Your task to perform on an android device: toggle notification dots Image 0: 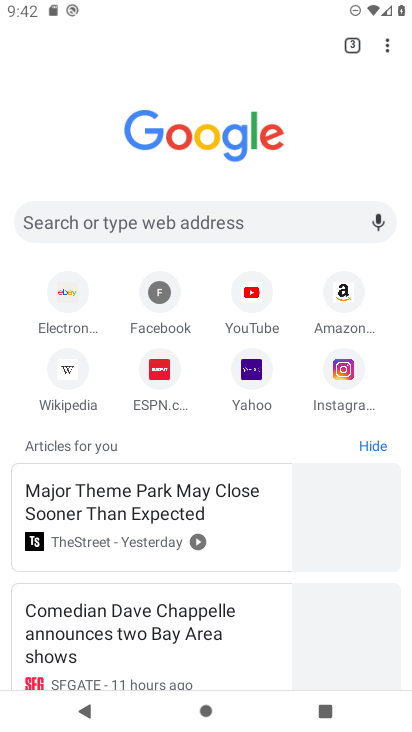
Step 0: click (24, 55)
Your task to perform on an android device: toggle notification dots Image 1: 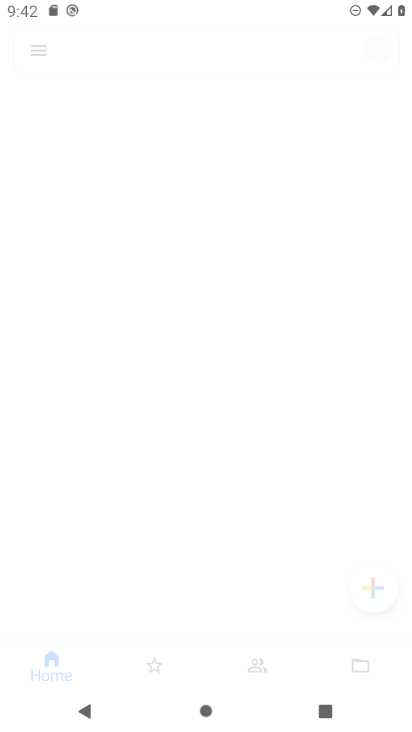
Step 1: press back button
Your task to perform on an android device: toggle notification dots Image 2: 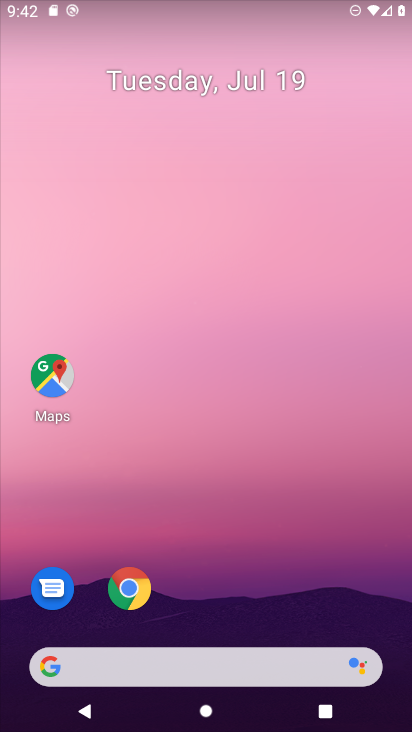
Step 2: drag from (254, 644) to (271, 221)
Your task to perform on an android device: toggle notification dots Image 3: 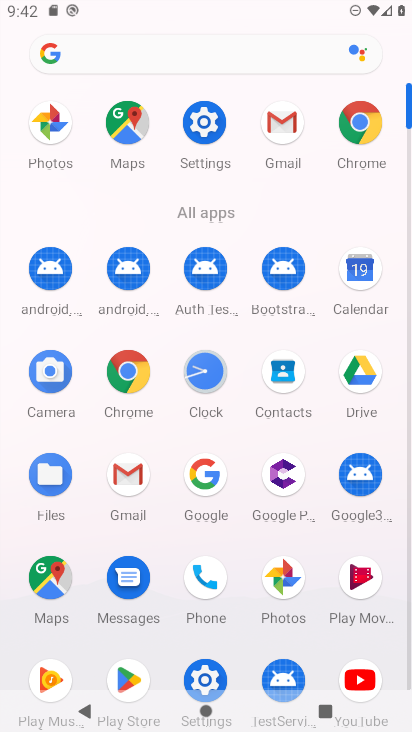
Step 3: click (199, 129)
Your task to perform on an android device: toggle notification dots Image 4: 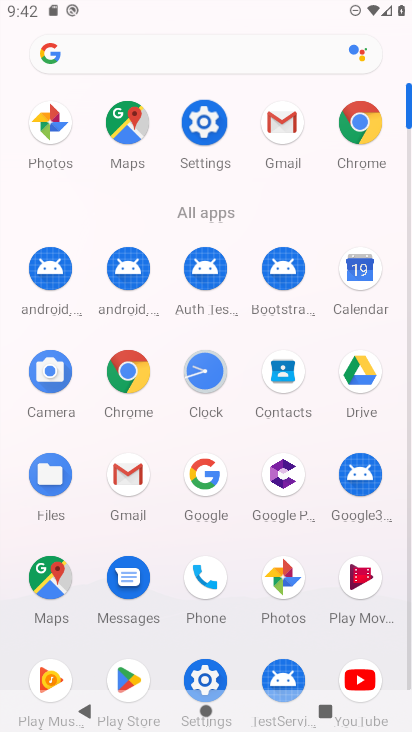
Step 4: click (197, 133)
Your task to perform on an android device: toggle notification dots Image 5: 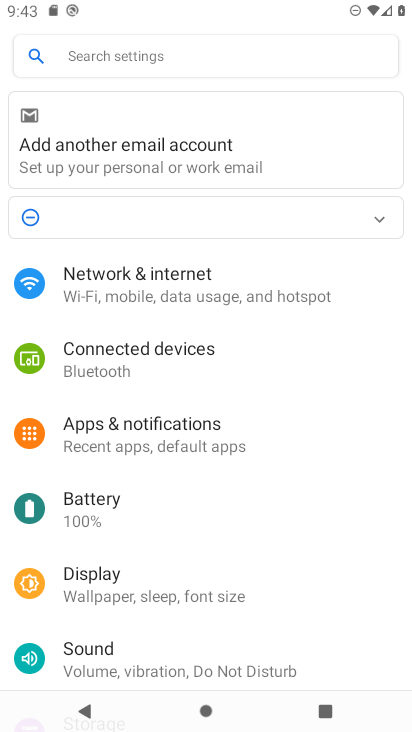
Step 5: click (138, 433)
Your task to perform on an android device: toggle notification dots Image 6: 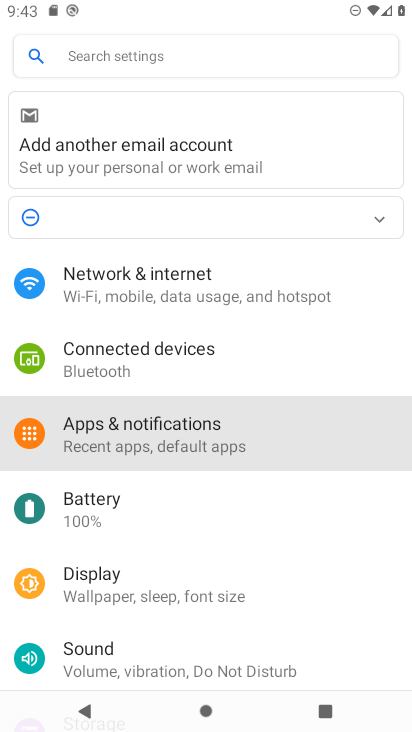
Step 6: click (138, 433)
Your task to perform on an android device: toggle notification dots Image 7: 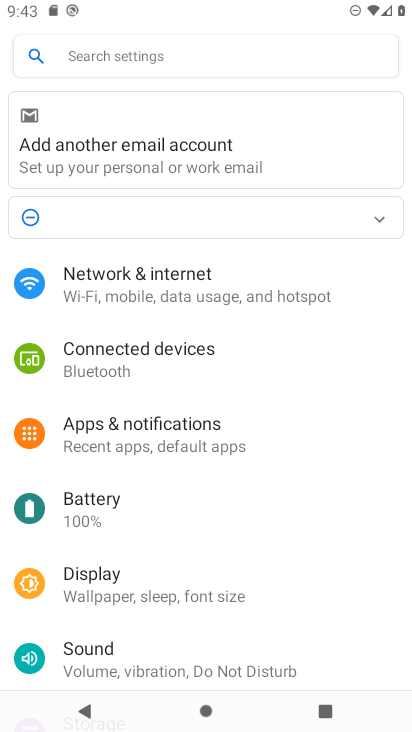
Step 7: click (138, 433)
Your task to perform on an android device: toggle notification dots Image 8: 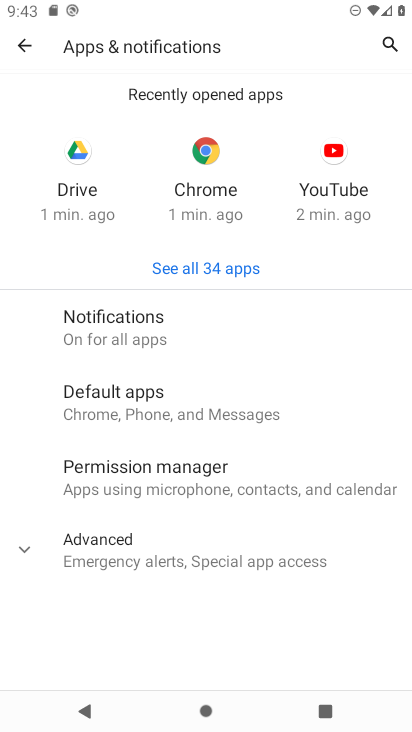
Step 8: click (138, 332)
Your task to perform on an android device: toggle notification dots Image 9: 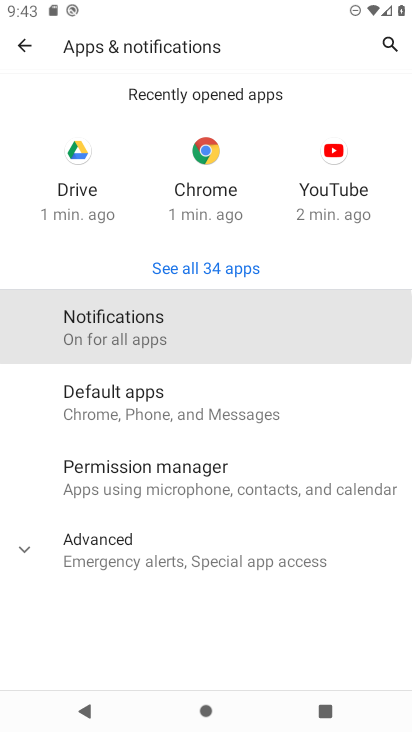
Step 9: click (138, 332)
Your task to perform on an android device: toggle notification dots Image 10: 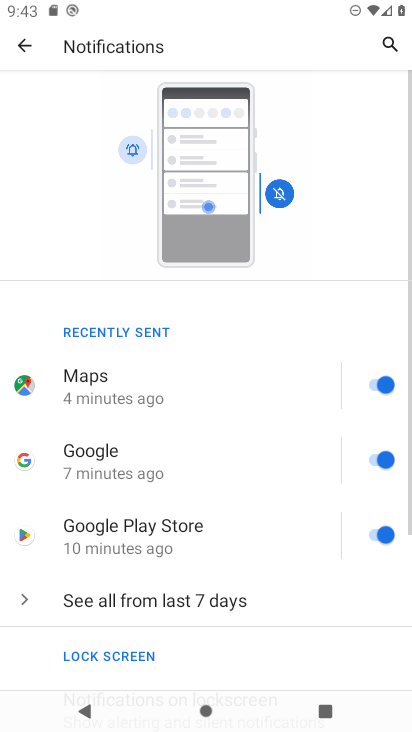
Step 10: drag from (200, 597) to (181, 272)
Your task to perform on an android device: toggle notification dots Image 11: 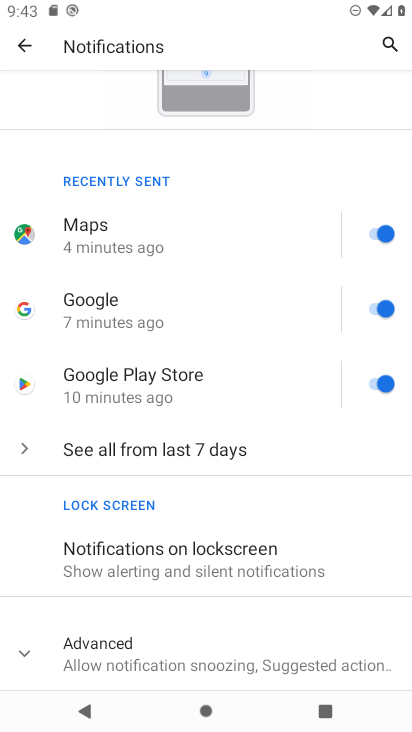
Step 11: drag from (162, 544) to (207, 272)
Your task to perform on an android device: toggle notification dots Image 12: 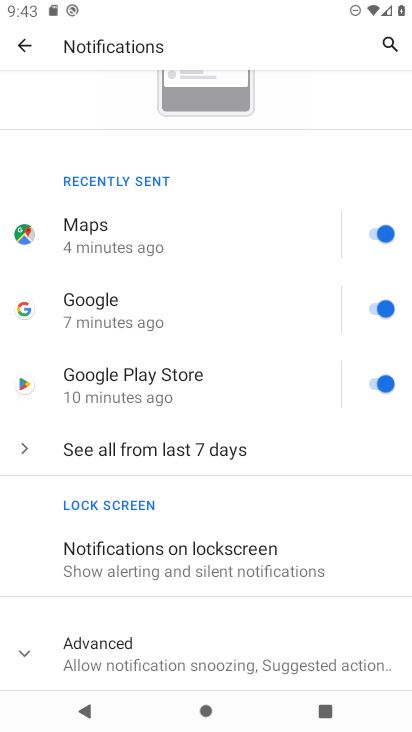
Step 12: drag from (153, 590) to (152, 340)
Your task to perform on an android device: toggle notification dots Image 13: 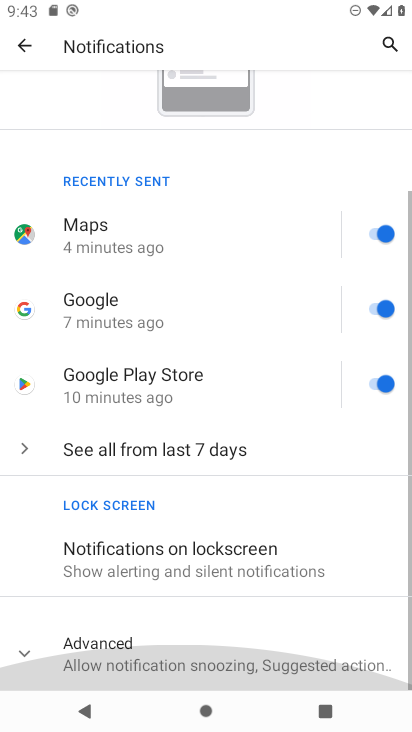
Step 13: drag from (209, 592) to (209, 368)
Your task to perform on an android device: toggle notification dots Image 14: 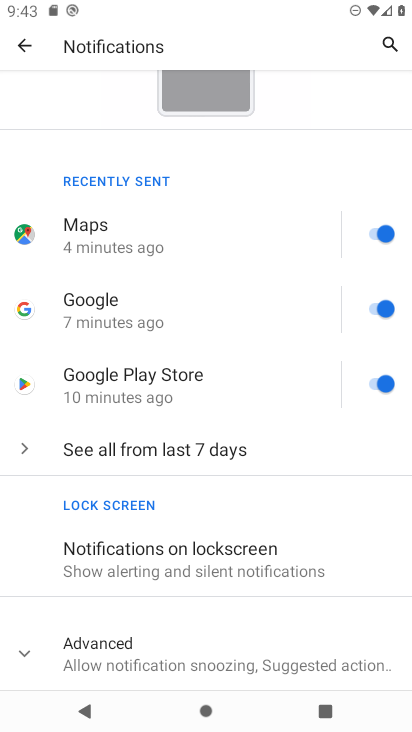
Step 14: click (126, 666)
Your task to perform on an android device: toggle notification dots Image 15: 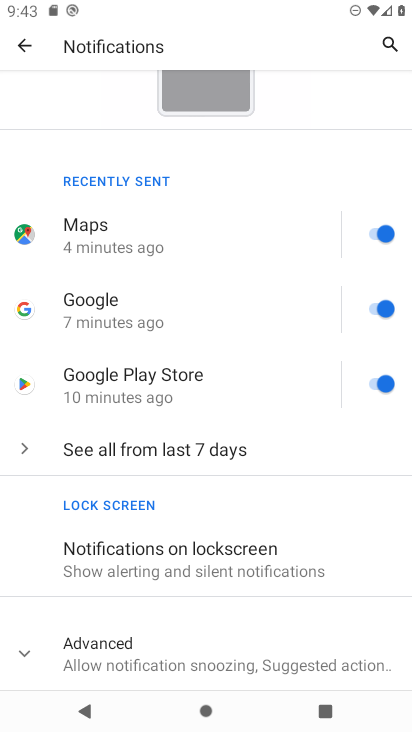
Step 15: click (126, 666)
Your task to perform on an android device: toggle notification dots Image 16: 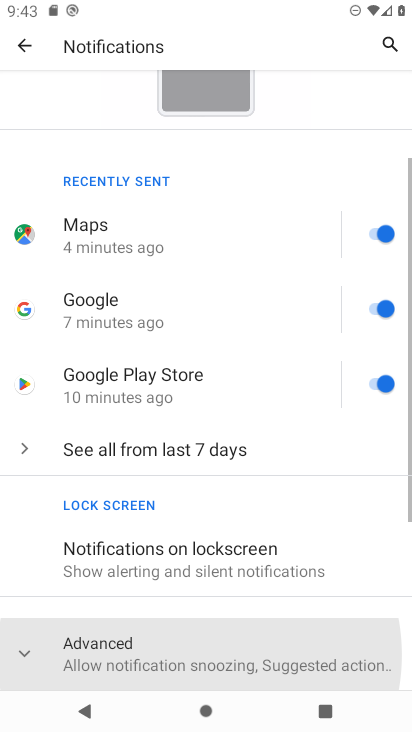
Step 16: click (127, 665)
Your task to perform on an android device: toggle notification dots Image 17: 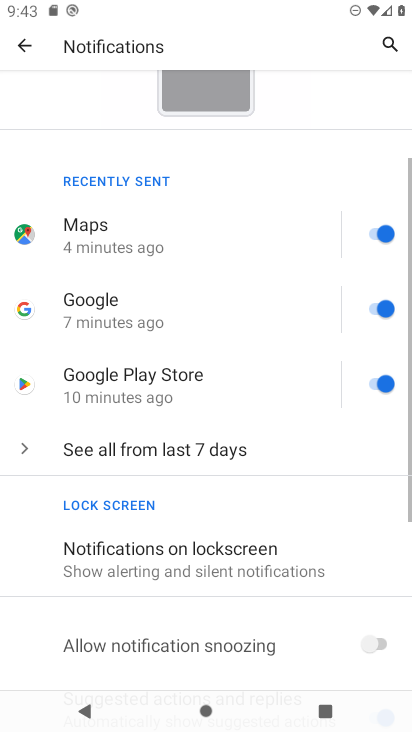
Step 17: click (127, 665)
Your task to perform on an android device: toggle notification dots Image 18: 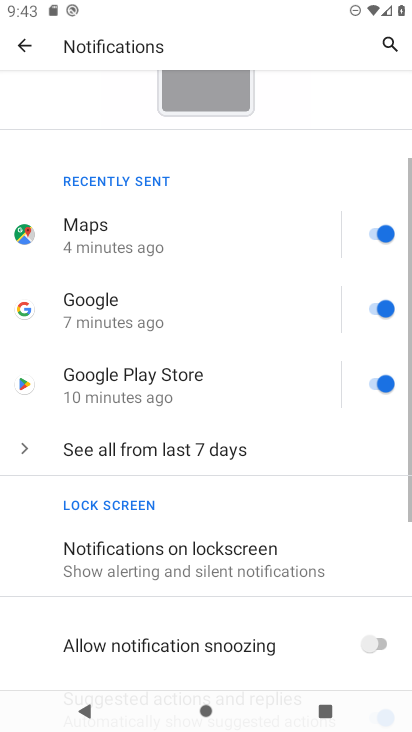
Step 18: drag from (239, 620) to (217, 331)
Your task to perform on an android device: toggle notification dots Image 19: 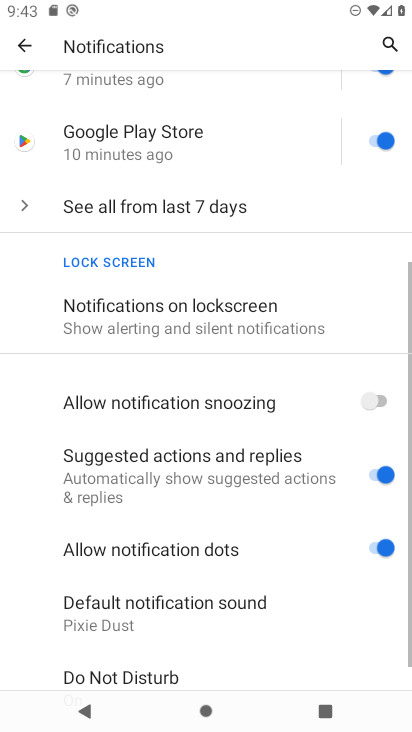
Step 19: drag from (236, 558) to (190, 270)
Your task to perform on an android device: toggle notification dots Image 20: 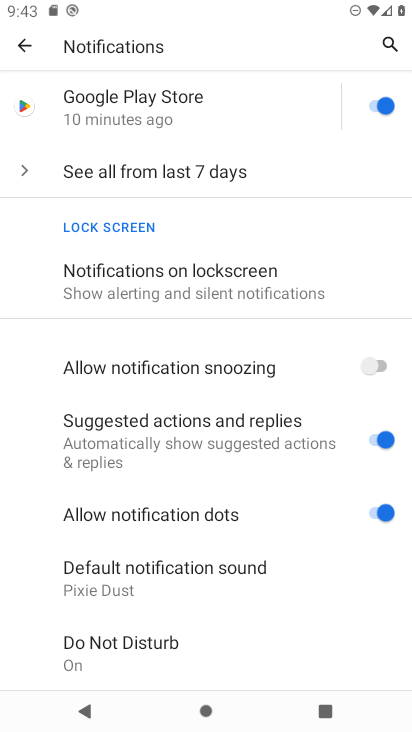
Step 20: click (382, 520)
Your task to perform on an android device: toggle notification dots Image 21: 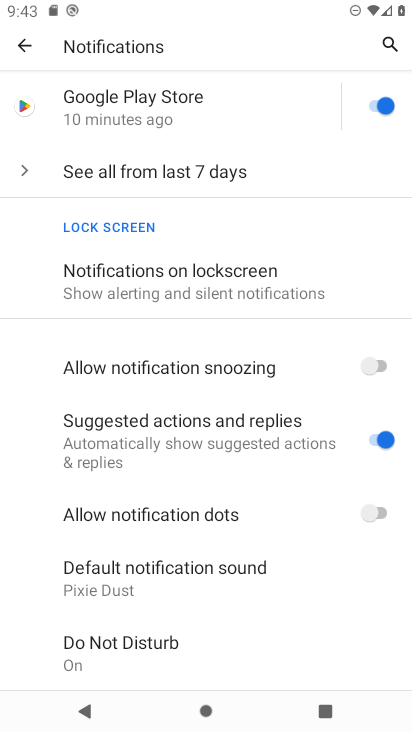
Step 21: task complete